Your task to perform on an android device: Go to privacy settings Image 0: 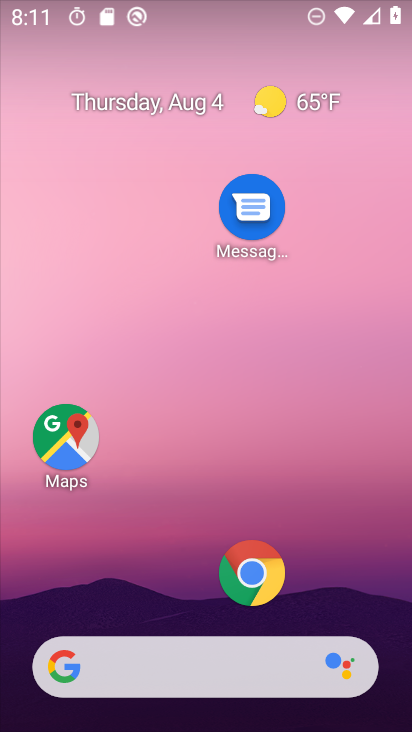
Step 0: press home button
Your task to perform on an android device: Go to privacy settings Image 1: 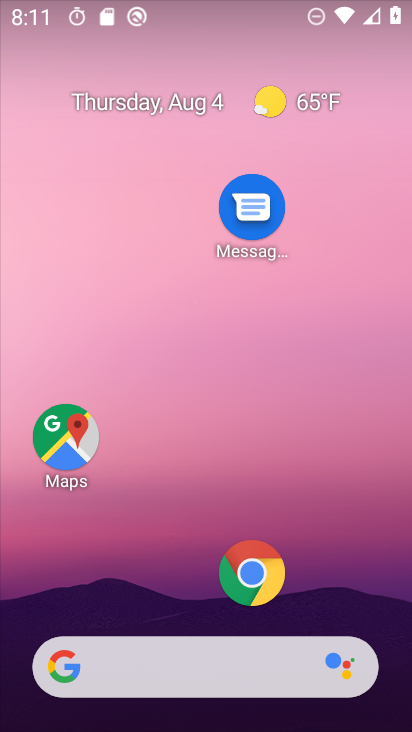
Step 1: drag from (144, 603) to (274, 96)
Your task to perform on an android device: Go to privacy settings Image 2: 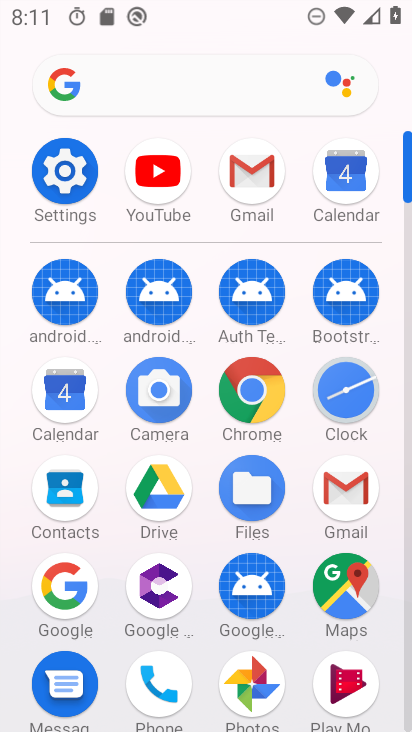
Step 2: click (90, 160)
Your task to perform on an android device: Go to privacy settings Image 3: 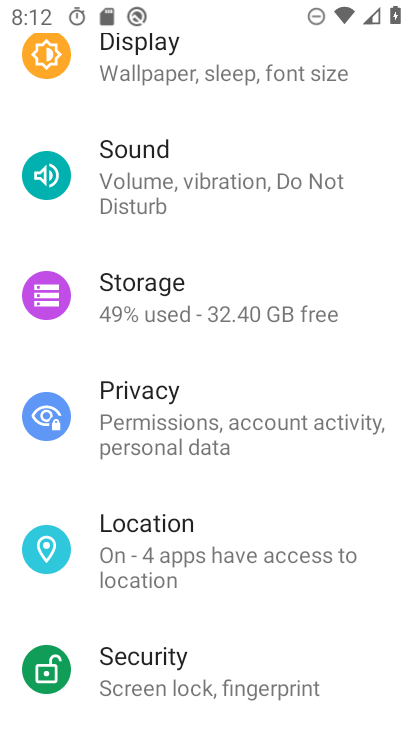
Step 3: click (139, 421)
Your task to perform on an android device: Go to privacy settings Image 4: 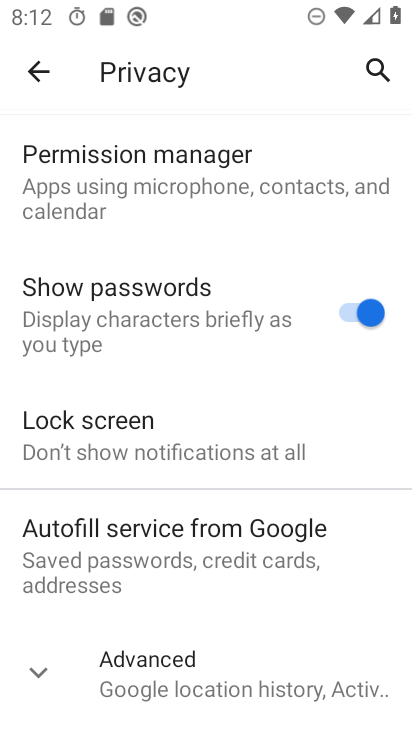
Step 4: task complete